Your task to perform on an android device: Open Youtube and go to "Your channel" Image 0: 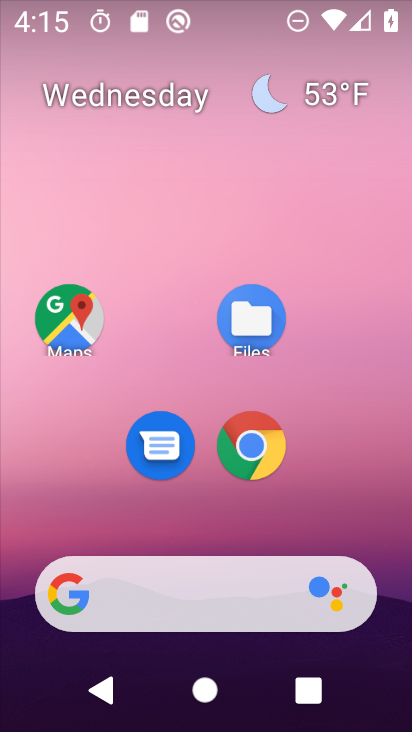
Step 0: drag from (325, 499) to (308, 135)
Your task to perform on an android device: Open Youtube and go to "Your channel" Image 1: 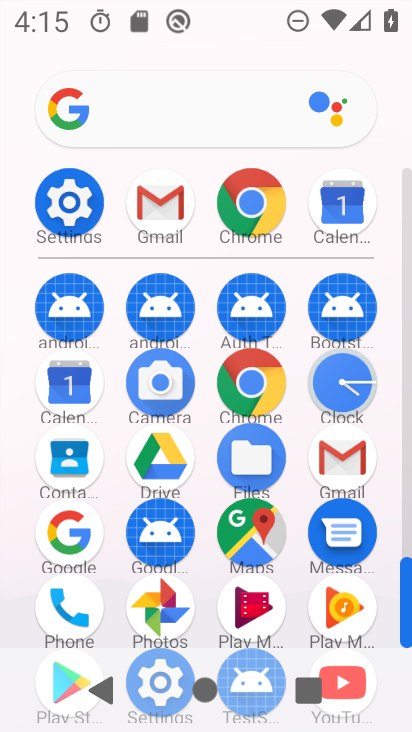
Step 1: drag from (299, 585) to (284, 267)
Your task to perform on an android device: Open Youtube and go to "Your channel" Image 2: 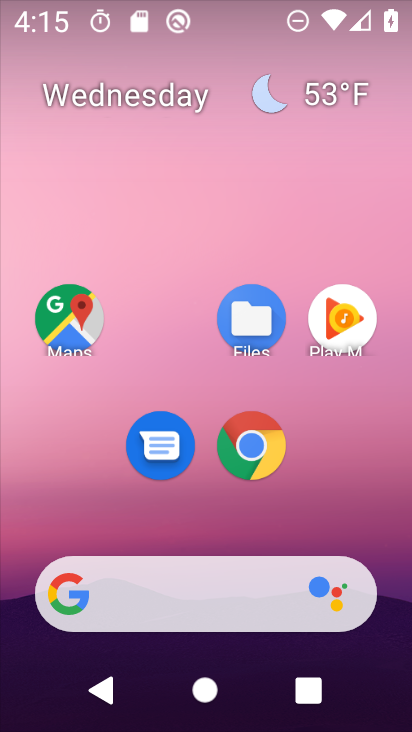
Step 2: drag from (265, 684) to (246, 326)
Your task to perform on an android device: Open Youtube and go to "Your channel" Image 3: 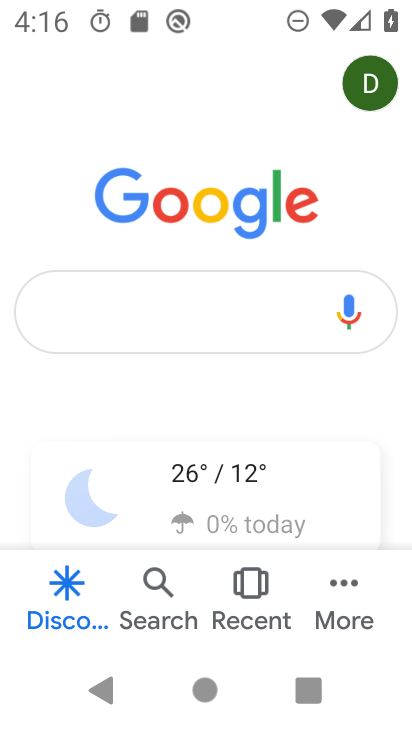
Step 3: press home button
Your task to perform on an android device: Open Youtube and go to "Your channel" Image 4: 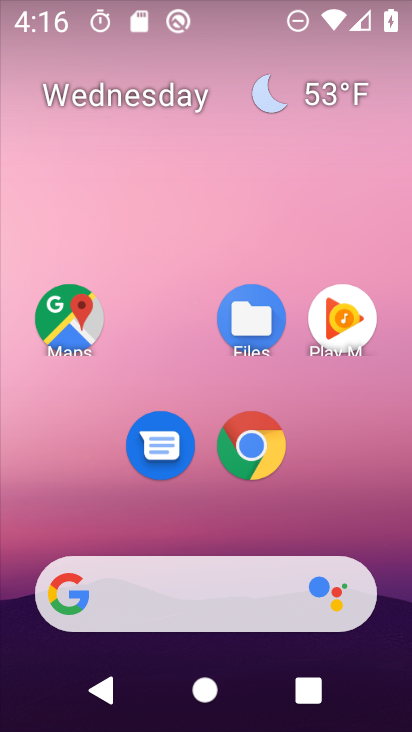
Step 4: drag from (368, 500) to (304, 0)
Your task to perform on an android device: Open Youtube and go to "Your channel" Image 5: 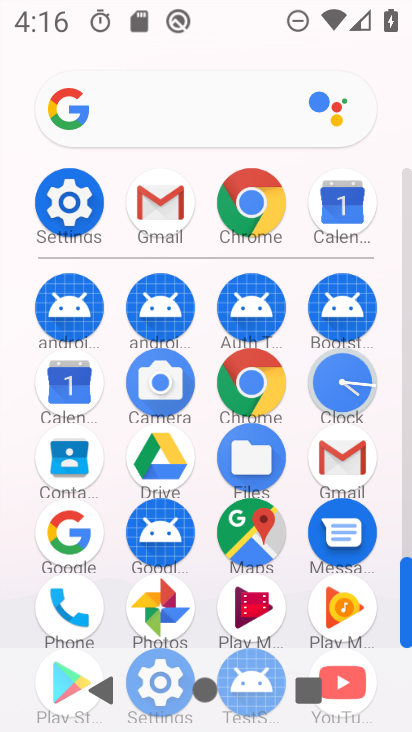
Step 5: drag from (377, 630) to (409, 253)
Your task to perform on an android device: Open Youtube and go to "Your channel" Image 6: 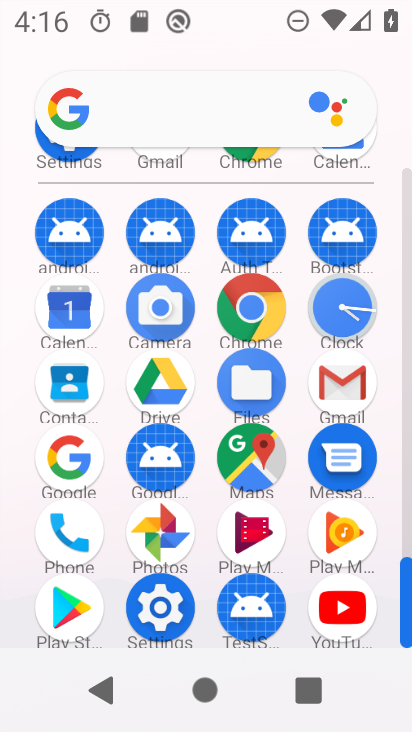
Step 6: click (337, 598)
Your task to perform on an android device: Open Youtube and go to "Your channel" Image 7: 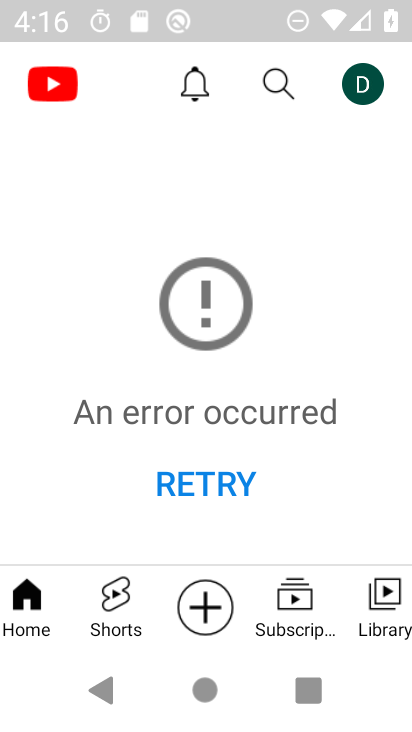
Step 7: click (375, 84)
Your task to perform on an android device: Open Youtube and go to "Your channel" Image 8: 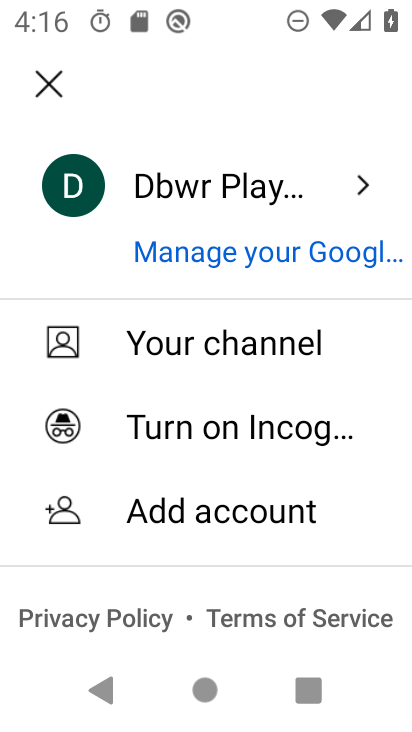
Step 8: click (232, 319)
Your task to perform on an android device: Open Youtube and go to "Your channel" Image 9: 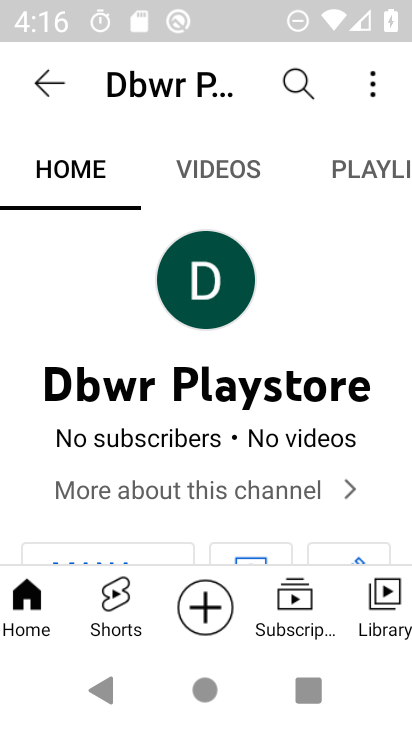
Step 9: task complete